Your task to perform on an android device: Open display settings Image 0: 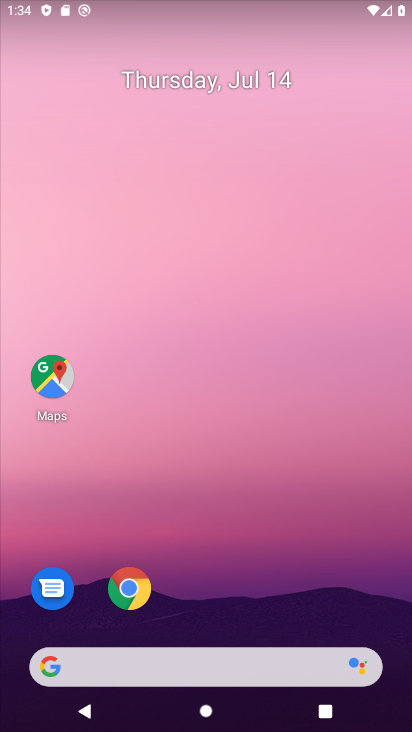
Step 0: drag from (280, 718) to (219, 126)
Your task to perform on an android device: Open display settings Image 1: 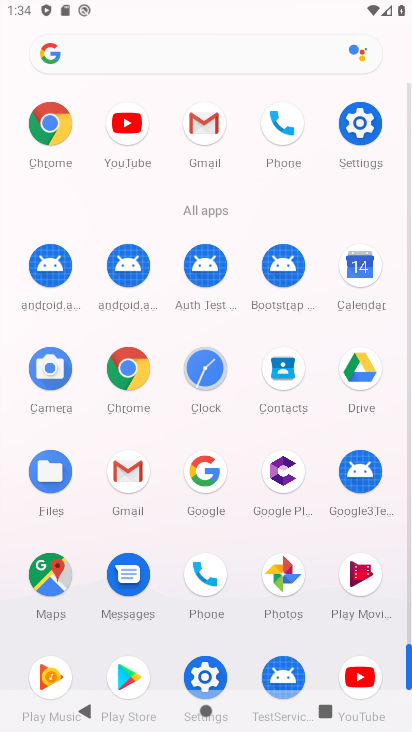
Step 1: click (355, 121)
Your task to perform on an android device: Open display settings Image 2: 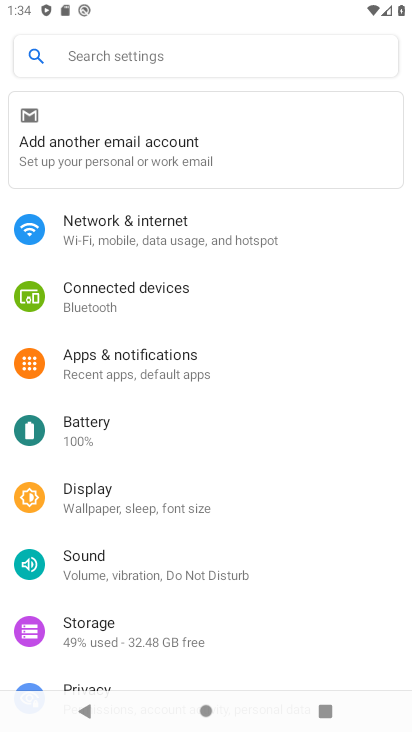
Step 2: click (153, 516)
Your task to perform on an android device: Open display settings Image 3: 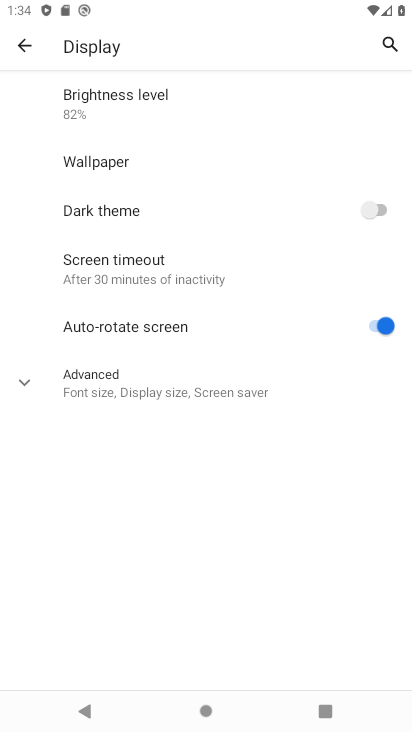
Step 3: task complete